Your task to perform on an android device: allow notifications from all sites in the chrome app Image 0: 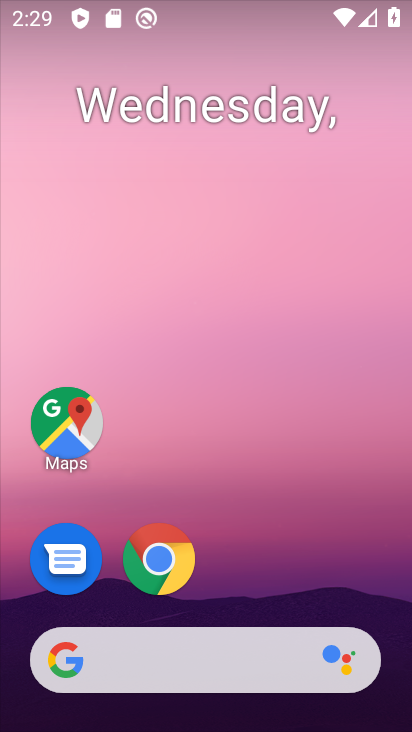
Step 0: click (156, 564)
Your task to perform on an android device: allow notifications from all sites in the chrome app Image 1: 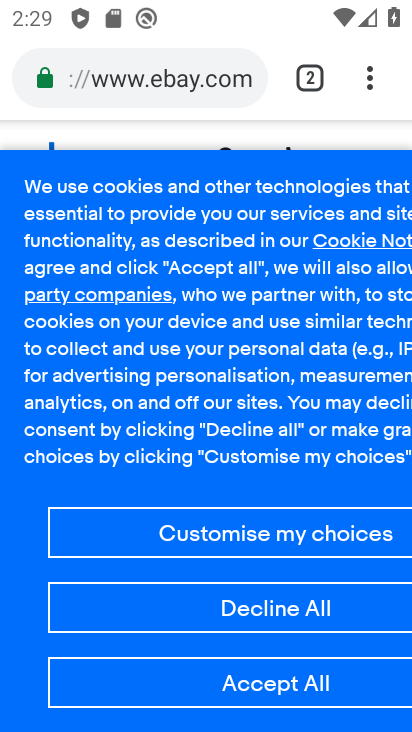
Step 1: drag from (366, 72) to (75, 619)
Your task to perform on an android device: allow notifications from all sites in the chrome app Image 2: 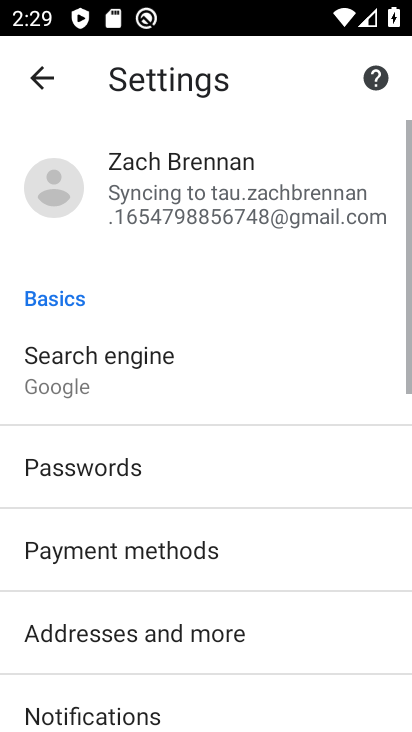
Step 2: drag from (103, 632) to (265, 125)
Your task to perform on an android device: allow notifications from all sites in the chrome app Image 3: 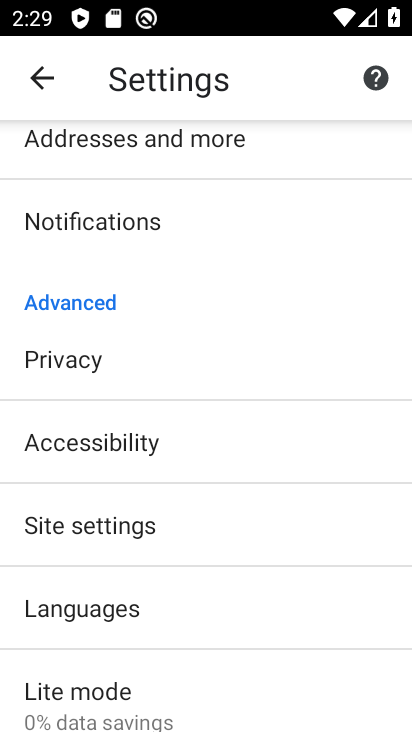
Step 3: click (113, 526)
Your task to perform on an android device: allow notifications from all sites in the chrome app Image 4: 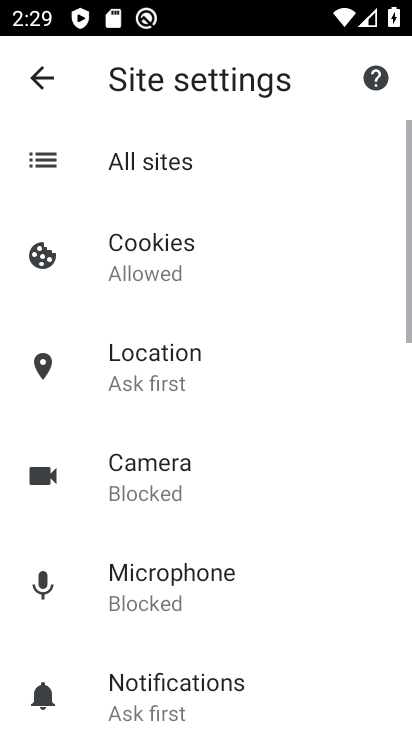
Step 4: click (57, 73)
Your task to perform on an android device: allow notifications from all sites in the chrome app Image 5: 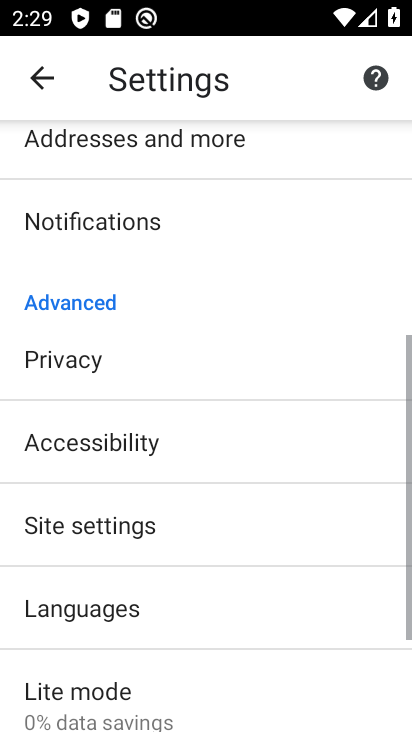
Step 5: click (107, 213)
Your task to perform on an android device: allow notifications from all sites in the chrome app Image 6: 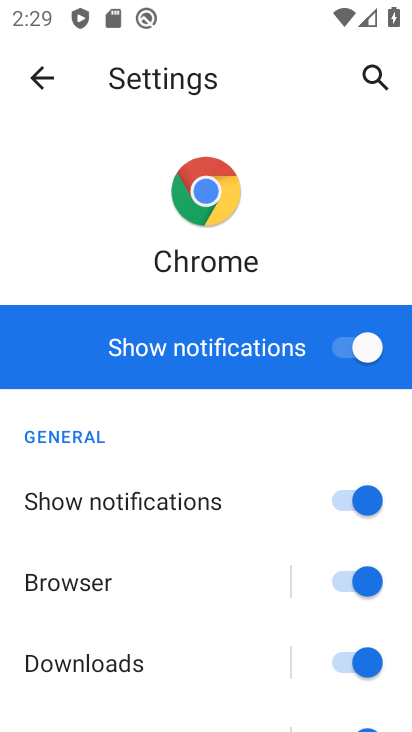
Step 6: task complete